Your task to perform on an android device: Open the Play Movies app and select the watchlist tab. Image 0: 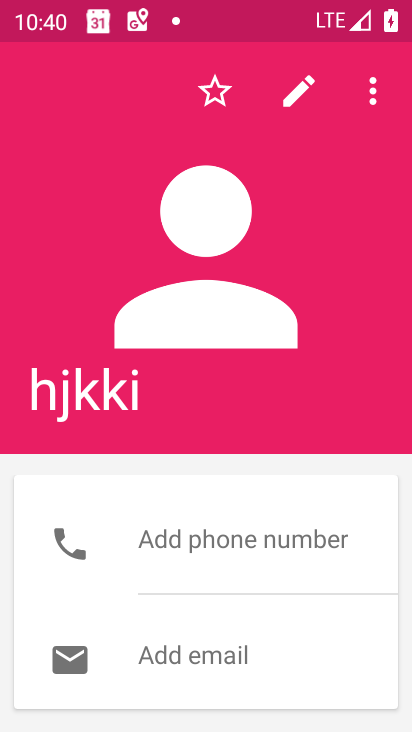
Step 0: press home button
Your task to perform on an android device: Open the Play Movies app and select the watchlist tab. Image 1: 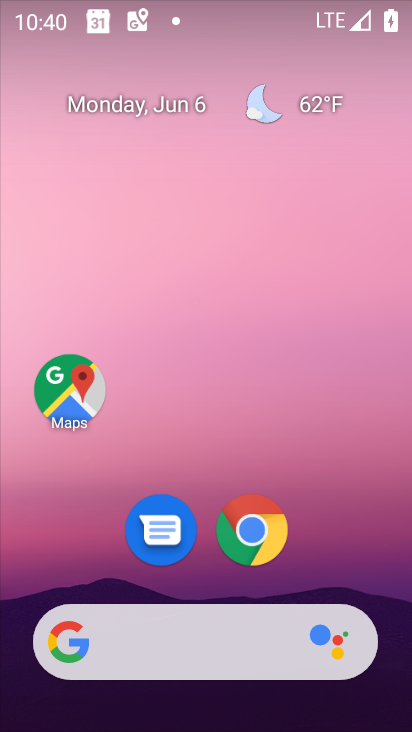
Step 1: drag from (294, 573) to (293, 163)
Your task to perform on an android device: Open the Play Movies app and select the watchlist tab. Image 2: 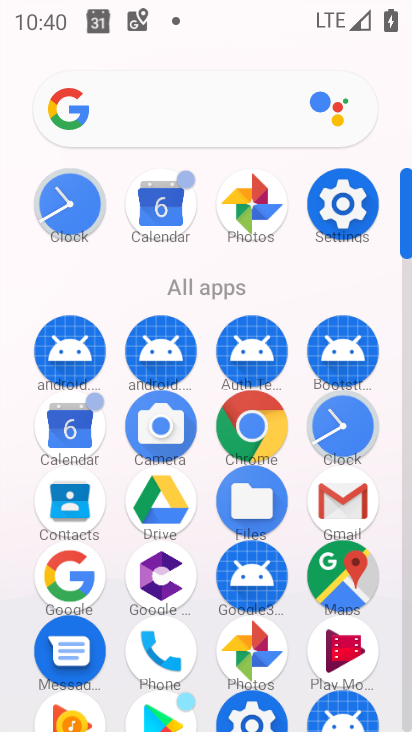
Step 2: drag from (306, 608) to (312, 221)
Your task to perform on an android device: Open the Play Movies app and select the watchlist tab. Image 3: 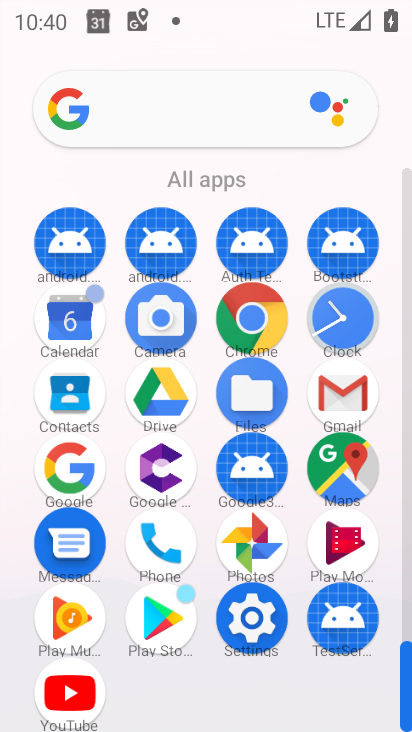
Step 3: click (337, 549)
Your task to perform on an android device: Open the Play Movies app and select the watchlist tab. Image 4: 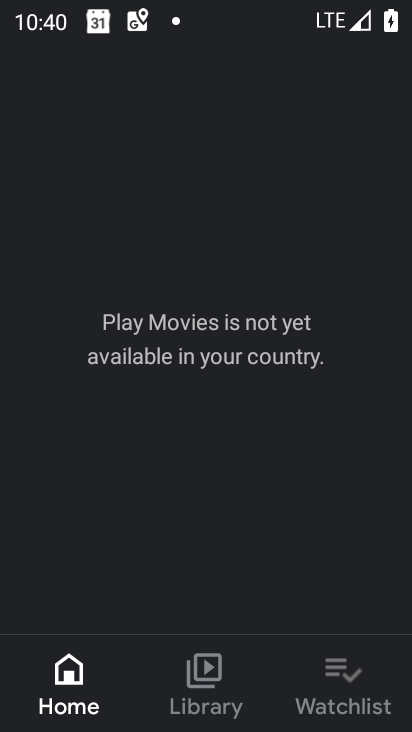
Step 4: click (334, 668)
Your task to perform on an android device: Open the Play Movies app and select the watchlist tab. Image 5: 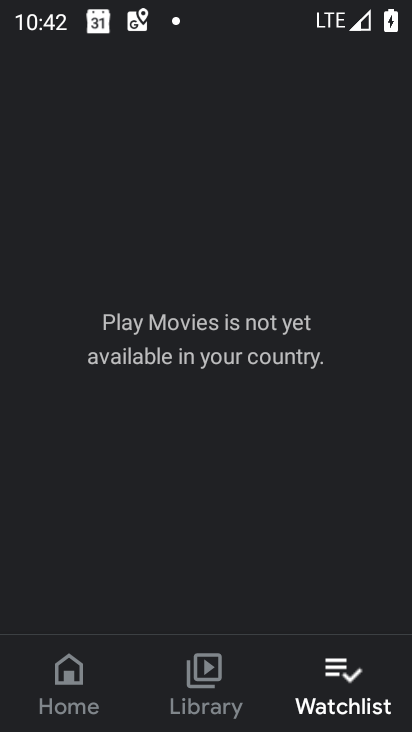
Step 5: task complete